Your task to perform on an android device: set the stopwatch Image 0: 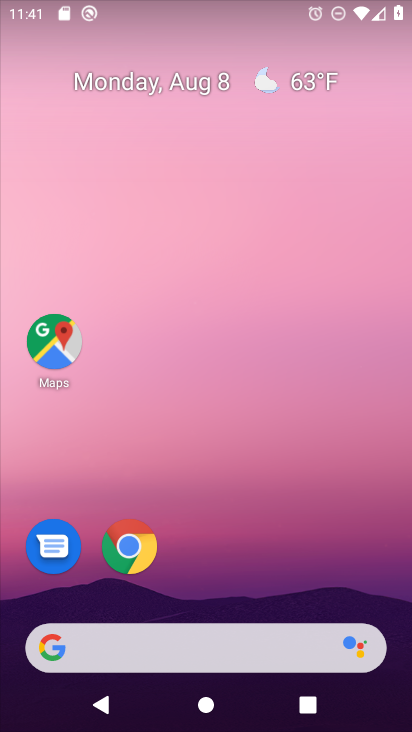
Step 0: drag from (231, 604) to (244, 69)
Your task to perform on an android device: set the stopwatch Image 1: 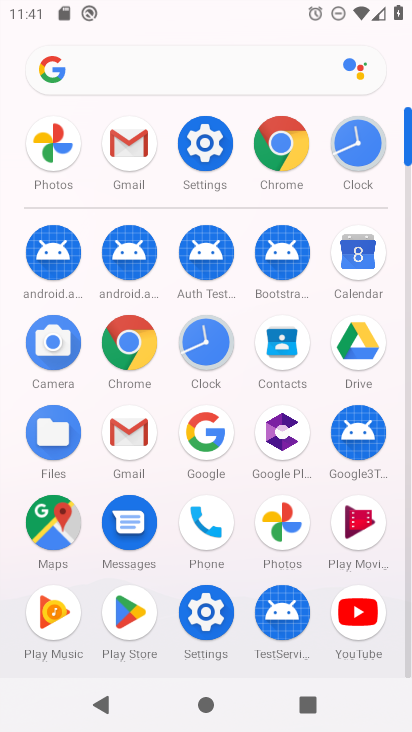
Step 1: click (201, 338)
Your task to perform on an android device: set the stopwatch Image 2: 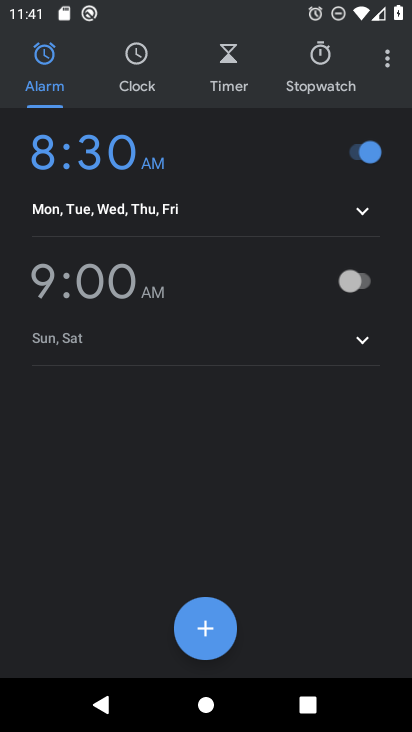
Step 2: click (316, 55)
Your task to perform on an android device: set the stopwatch Image 3: 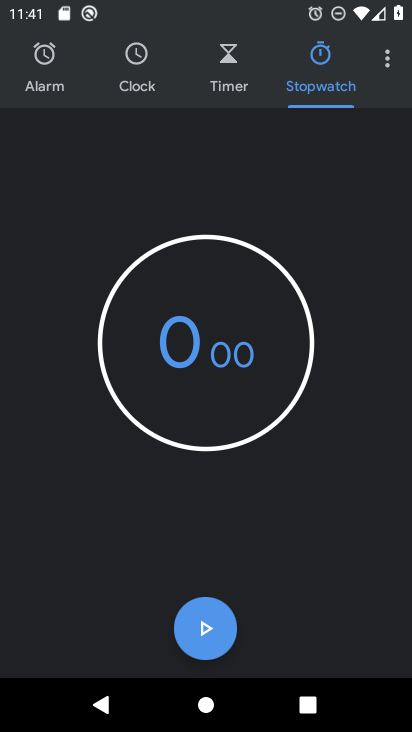
Step 3: click (204, 620)
Your task to perform on an android device: set the stopwatch Image 4: 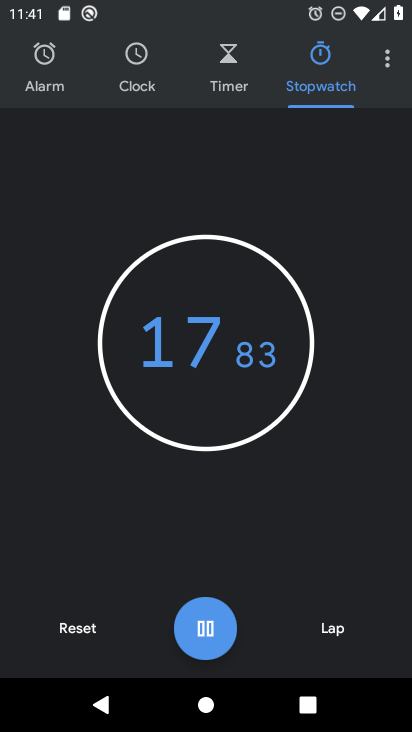
Step 4: click (69, 629)
Your task to perform on an android device: set the stopwatch Image 5: 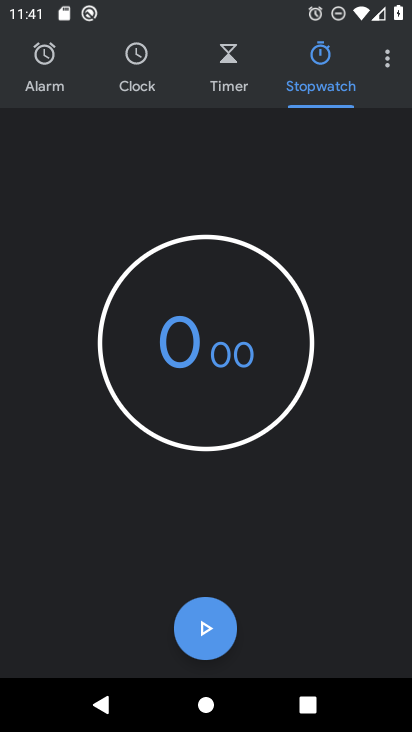
Step 5: task complete